Your task to perform on an android device: turn on data saver in the chrome app Image 0: 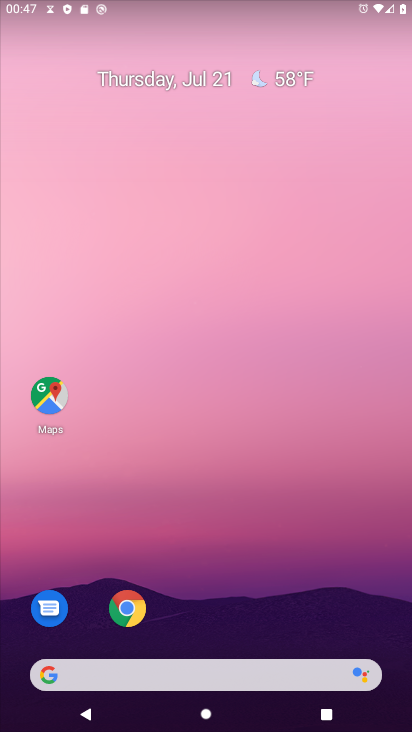
Step 0: click (124, 603)
Your task to perform on an android device: turn on data saver in the chrome app Image 1: 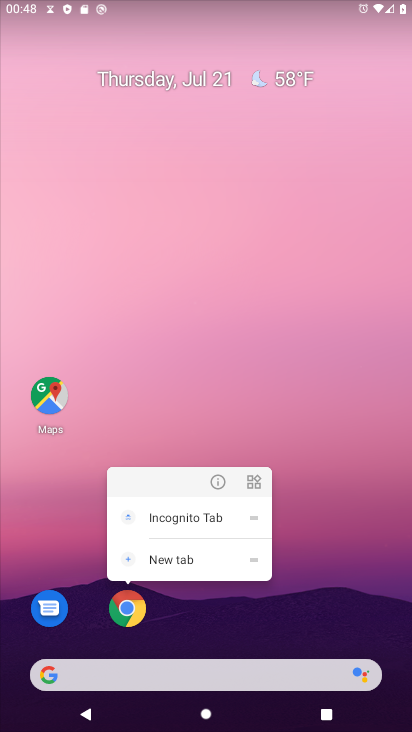
Step 1: click (124, 603)
Your task to perform on an android device: turn on data saver in the chrome app Image 2: 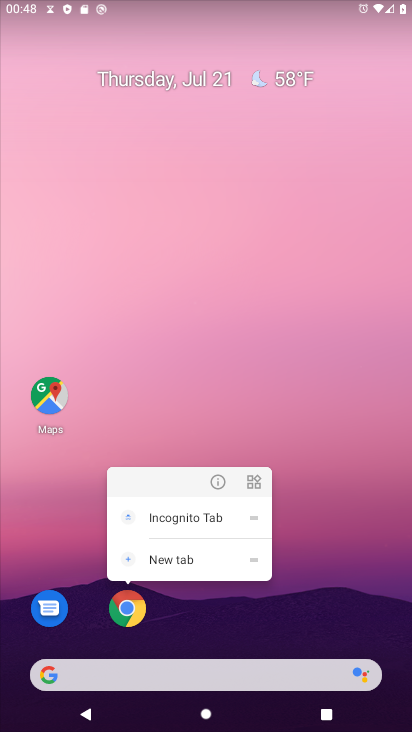
Step 2: click (126, 602)
Your task to perform on an android device: turn on data saver in the chrome app Image 3: 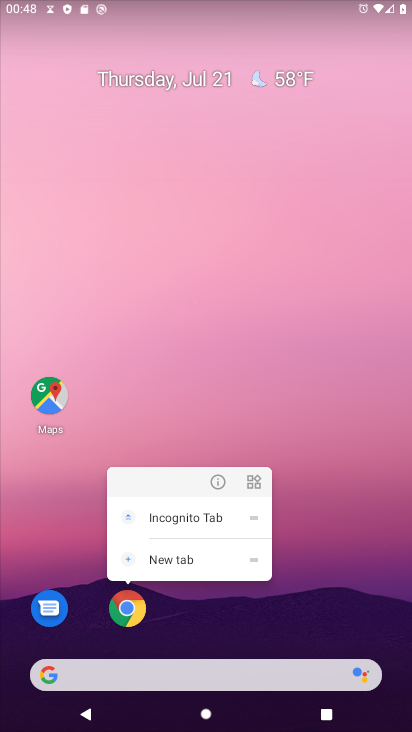
Step 3: click (125, 599)
Your task to perform on an android device: turn on data saver in the chrome app Image 4: 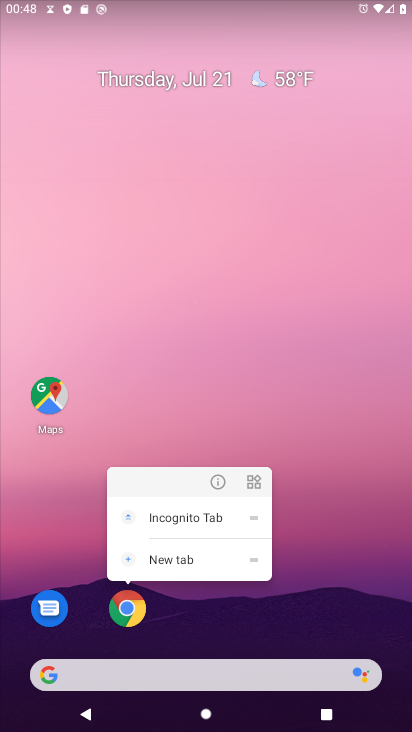
Step 4: click (122, 603)
Your task to perform on an android device: turn on data saver in the chrome app Image 5: 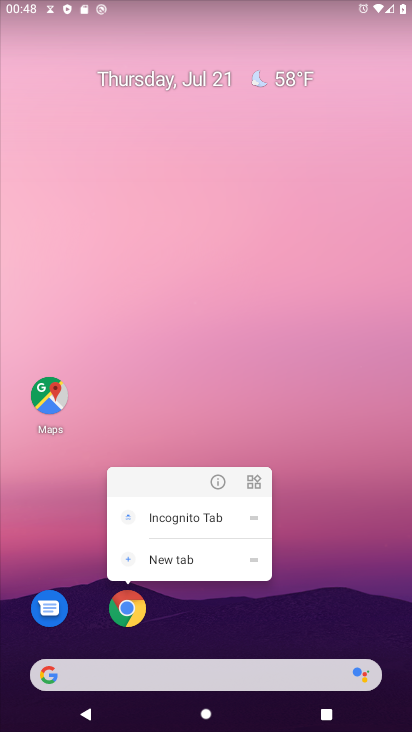
Step 5: click (124, 600)
Your task to perform on an android device: turn on data saver in the chrome app Image 6: 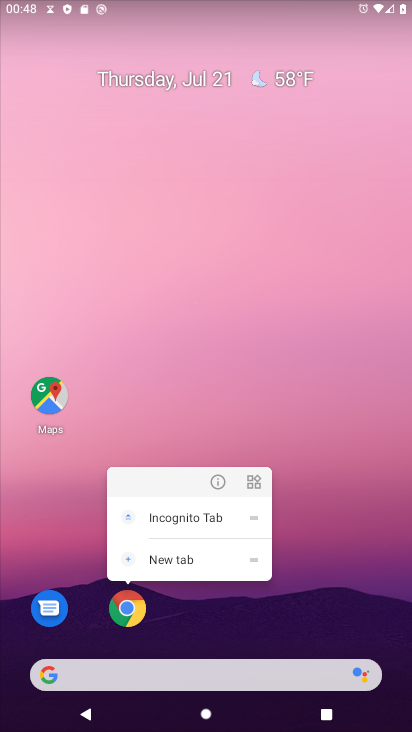
Step 6: click (124, 600)
Your task to perform on an android device: turn on data saver in the chrome app Image 7: 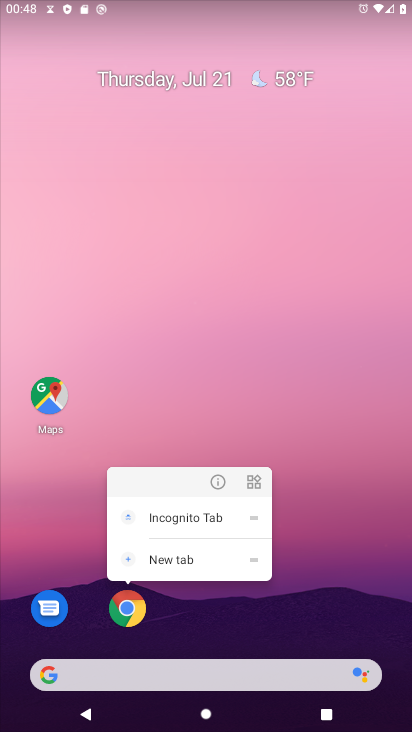
Step 7: click (124, 600)
Your task to perform on an android device: turn on data saver in the chrome app Image 8: 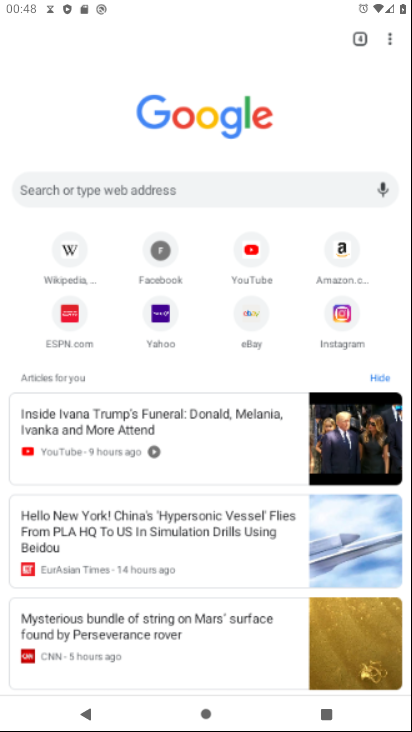
Step 8: click (391, 33)
Your task to perform on an android device: turn on data saver in the chrome app Image 9: 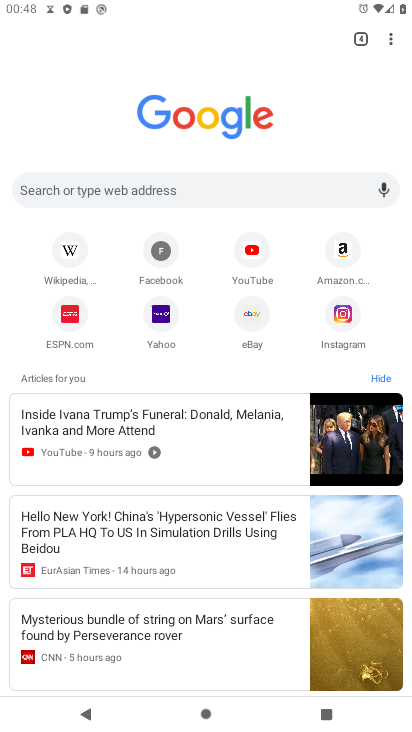
Step 9: click (388, 39)
Your task to perform on an android device: turn on data saver in the chrome app Image 10: 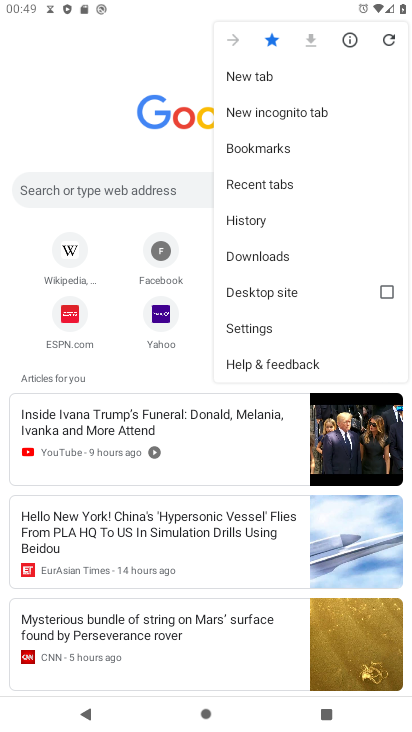
Step 10: click (272, 326)
Your task to perform on an android device: turn on data saver in the chrome app Image 11: 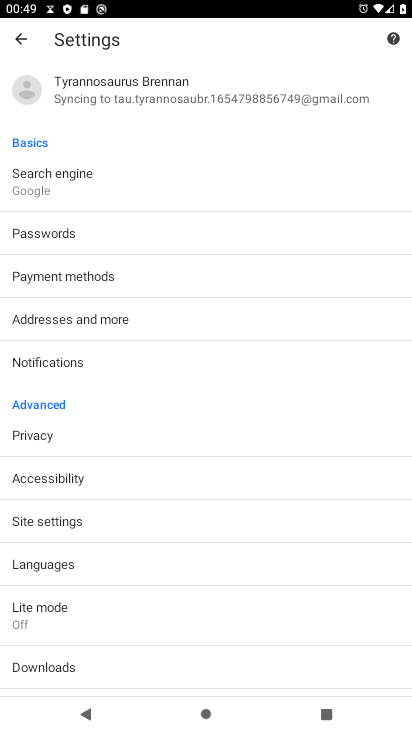
Step 11: click (57, 618)
Your task to perform on an android device: turn on data saver in the chrome app Image 12: 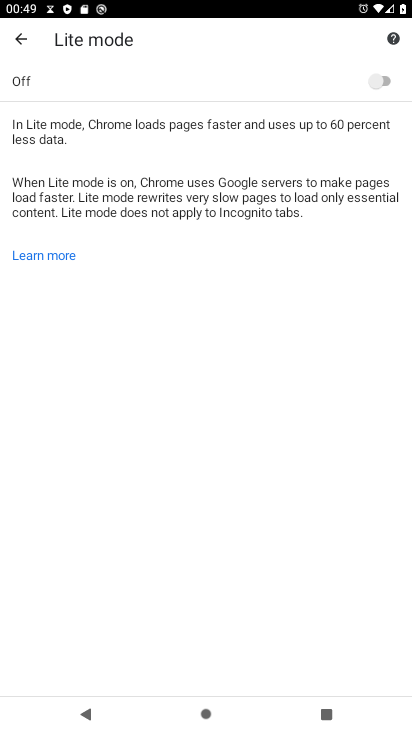
Step 12: click (384, 76)
Your task to perform on an android device: turn on data saver in the chrome app Image 13: 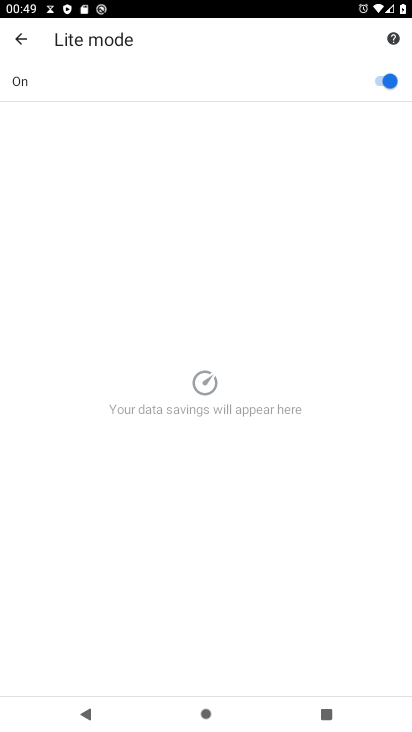
Step 13: task complete